Your task to perform on an android device: What's the weather? Image 0: 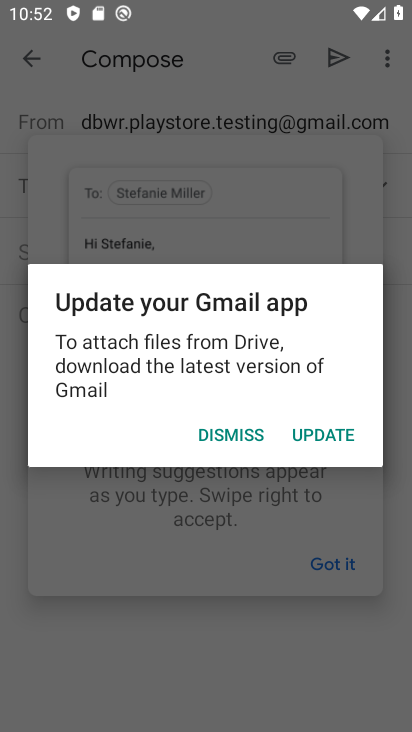
Step 0: press home button
Your task to perform on an android device: What's the weather? Image 1: 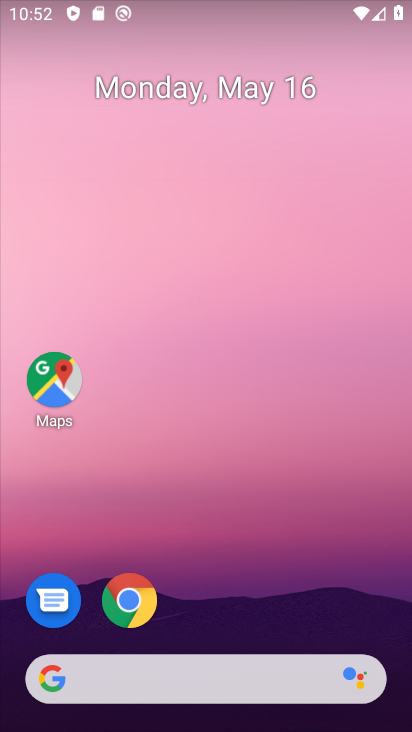
Step 1: click (131, 605)
Your task to perform on an android device: What's the weather? Image 2: 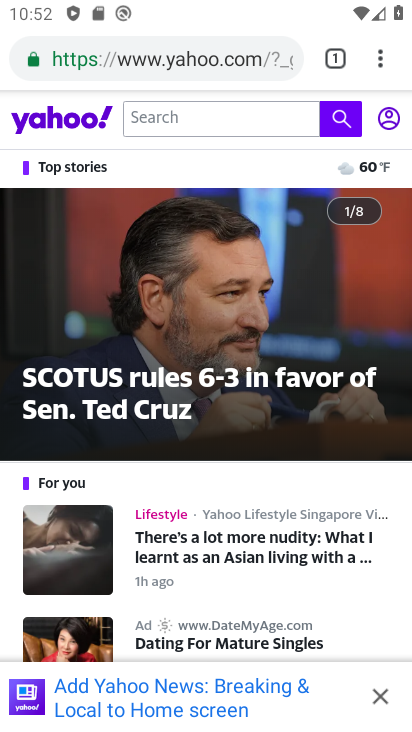
Step 2: click (175, 60)
Your task to perform on an android device: What's the weather? Image 3: 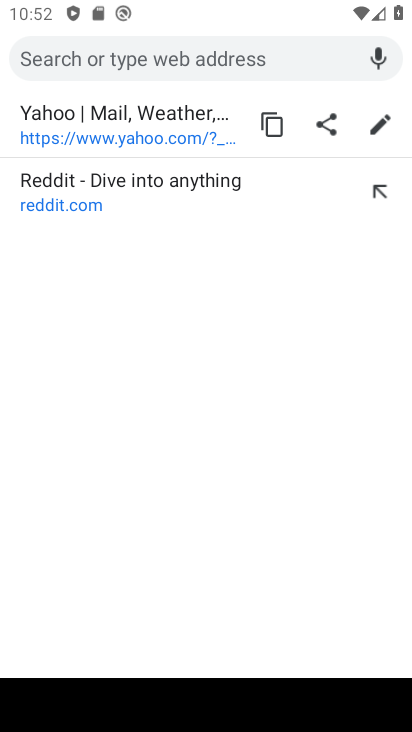
Step 3: type "Weather"
Your task to perform on an android device: What's the weather? Image 4: 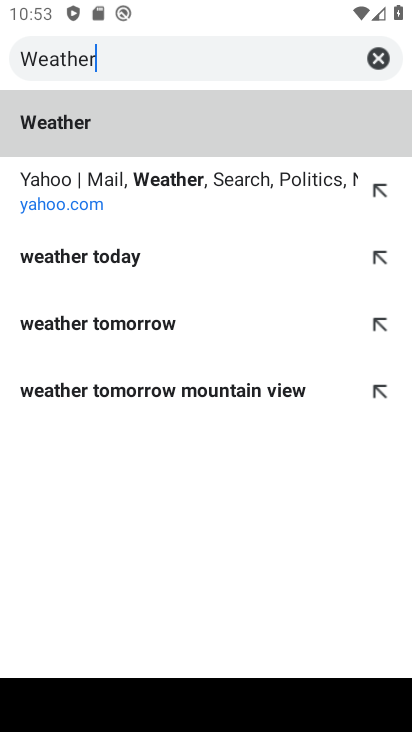
Step 4: click (164, 115)
Your task to perform on an android device: What's the weather? Image 5: 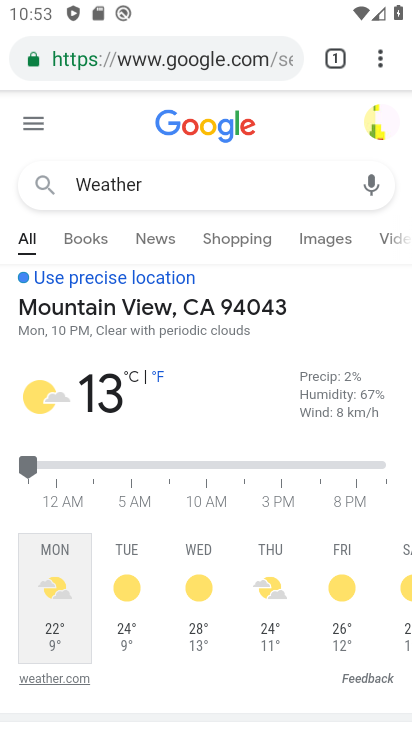
Step 5: task complete